Your task to perform on an android device: check out phone information Image 0: 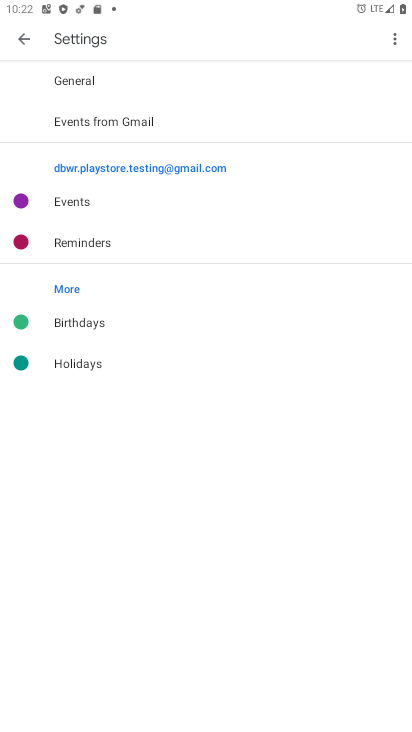
Step 0: press home button
Your task to perform on an android device: check out phone information Image 1: 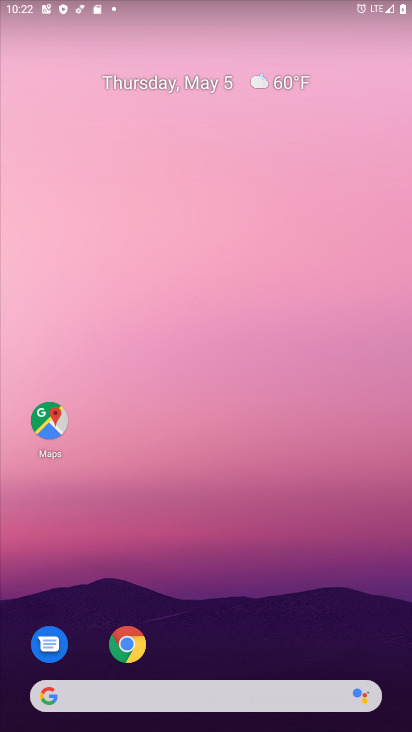
Step 1: drag from (244, 572) to (244, 156)
Your task to perform on an android device: check out phone information Image 2: 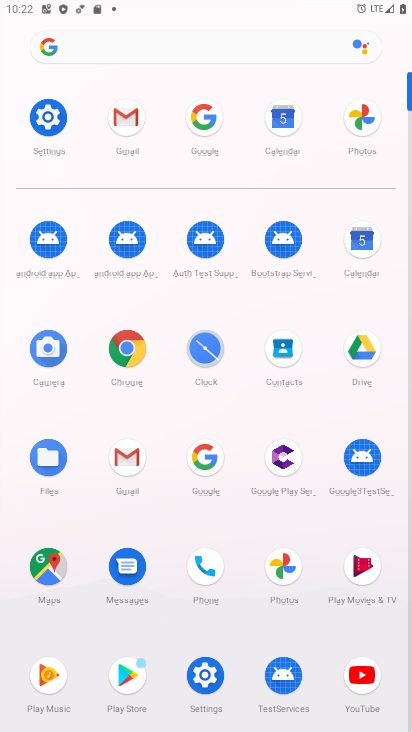
Step 2: click (213, 575)
Your task to perform on an android device: check out phone information Image 3: 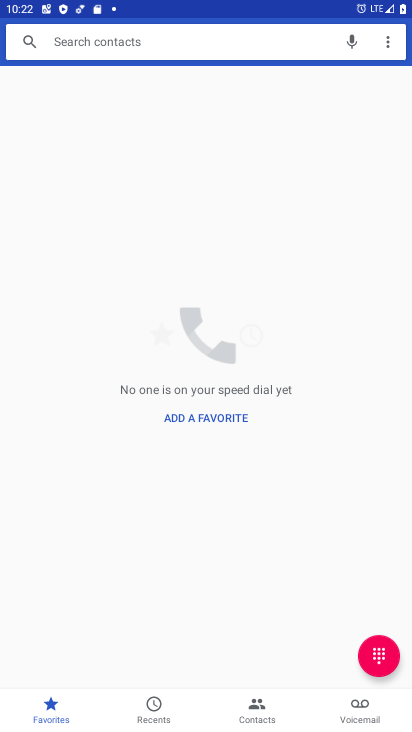
Step 3: click (385, 44)
Your task to perform on an android device: check out phone information Image 4: 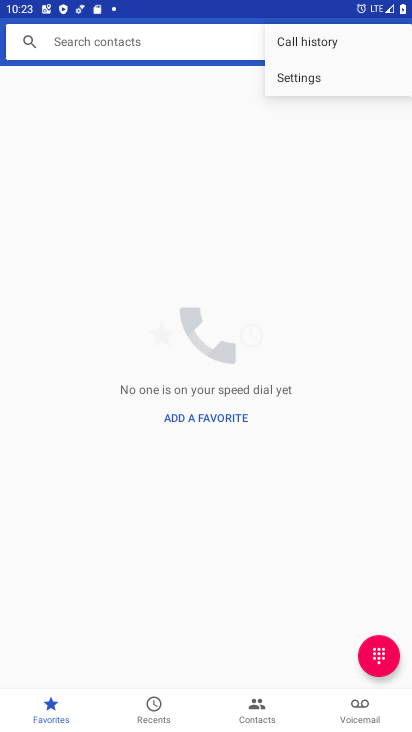
Step 4: click (324, 78)
Your task to perform on an android device: check out phone information Image 5: 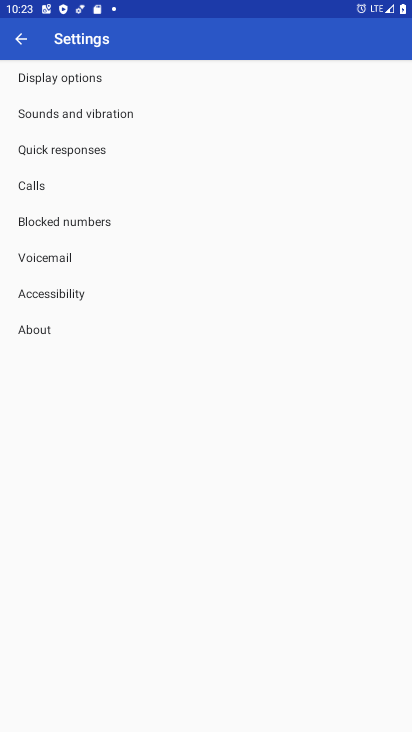
Step 5: click (46, 325)
Your task to perform on an android device: check out phone information Image 6: 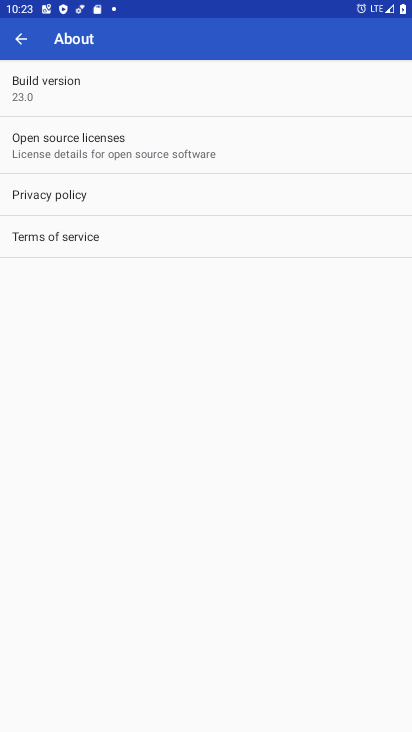
Step 6: task complete